Your task to perform on an android device: turn off smart reply in the gmail app Image 0: 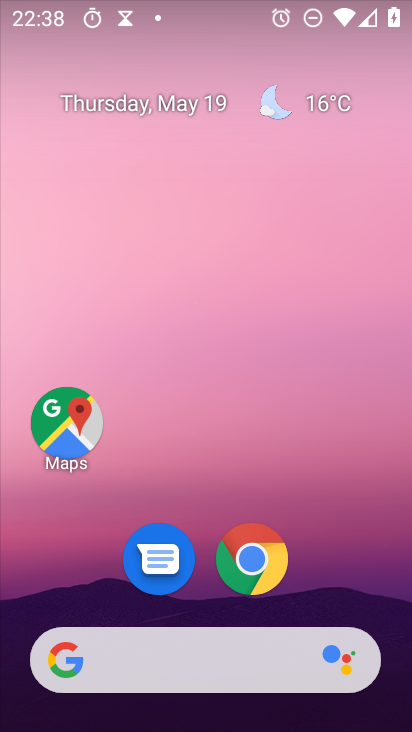
Step 0: drag from (212, 730) to (188, 178)
Your task to perform on an android device: turn off smart reply in the gmail app Image 1: 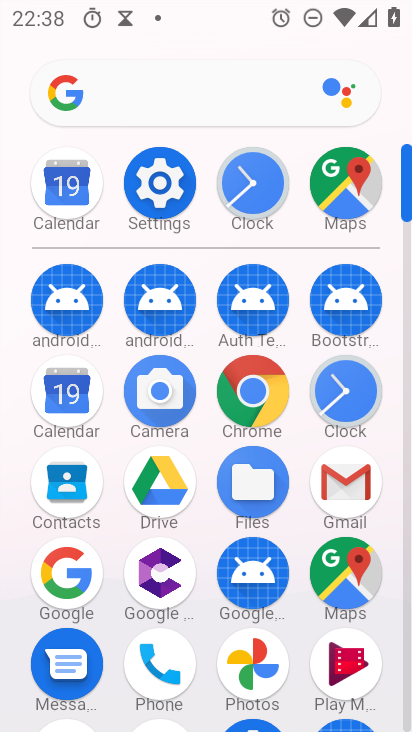
Step 1: click (337, 486)
Your task to perform on an android device: turn off smart reply in the gmail app Image 2: 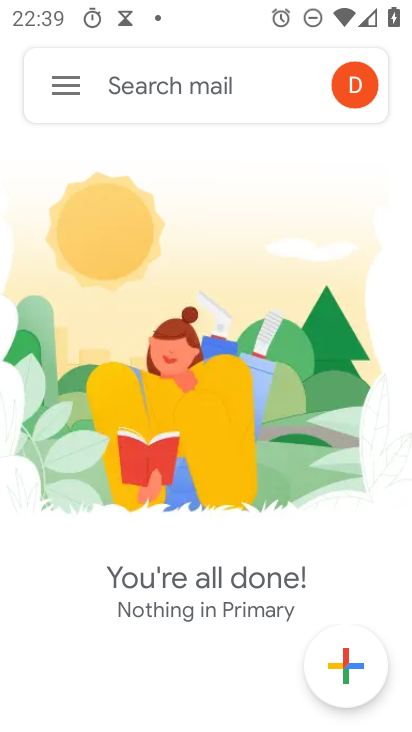
Step 2: click (63, 90)
Your task to perform on an android device: turn off smart reply in the gmail app Image 3: 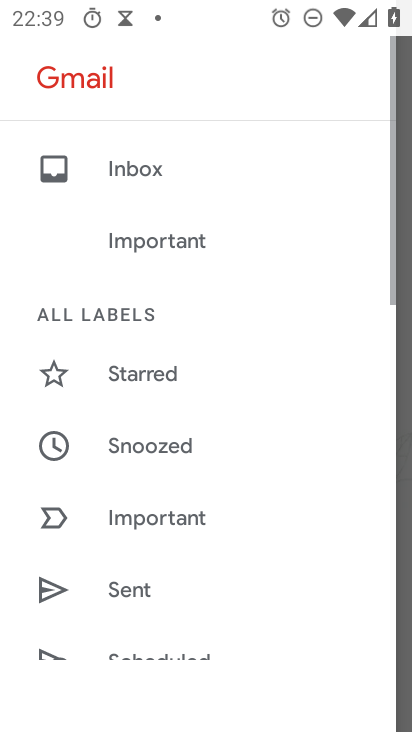
Step 3: drag from (182, 640) to (176, 226)
Your task to perform on an android device: turn off smart reply in the gmail app Image 4: 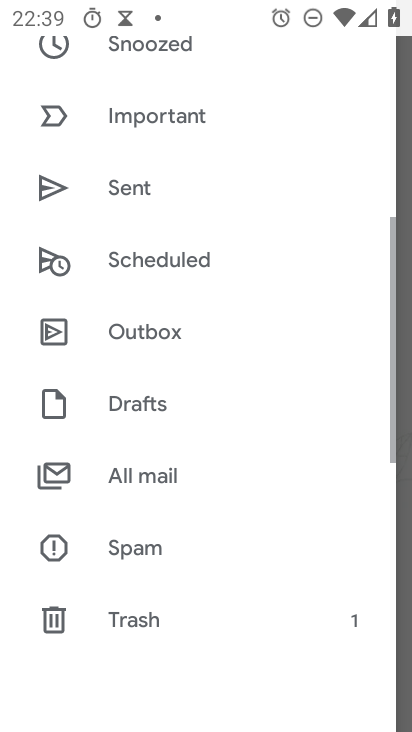
Step 4: drag from (172, 614) to (145, 276)
Your task to perform on an android device: turn off smart reply in the gmail app Image 5: 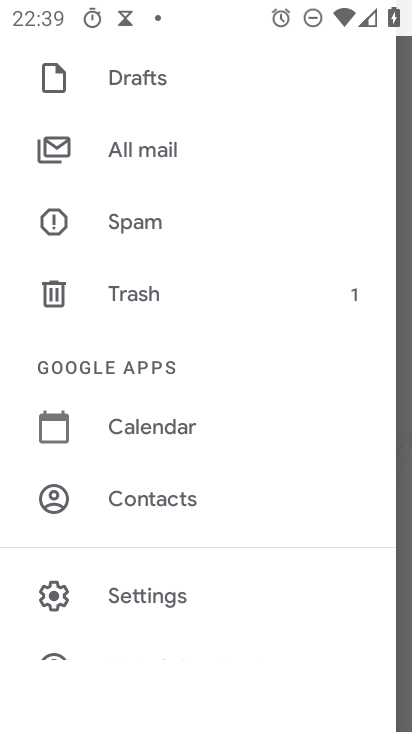
Step 5: click (161, 597)
Your task to perform on an android device: turn off smart reply in the gmail app Image 6: 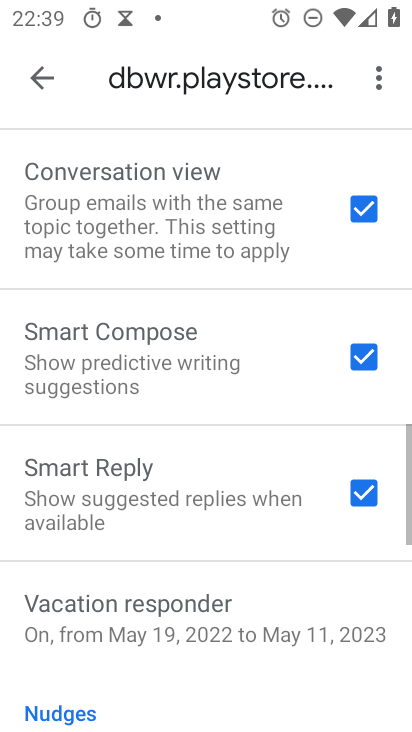
Step 6: drag from (159, 640) to (153, 375)
Your task to perform on an android device: turn off smart reply in the gmail app Image 7: 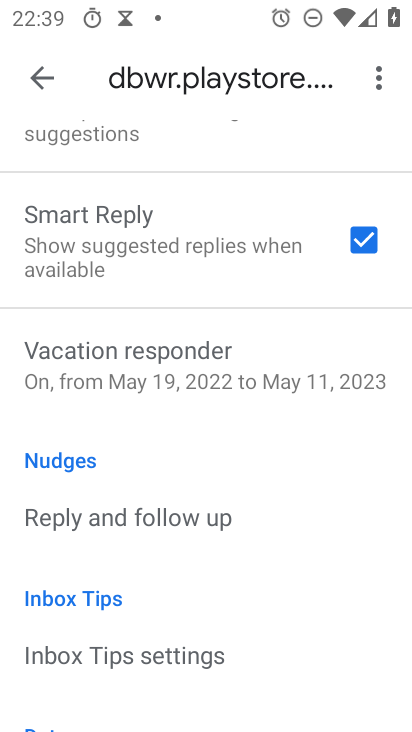
Step 7: click (363, 243)
Your task to perform on an android device: turn off smart reply in the gmail app Image 8: 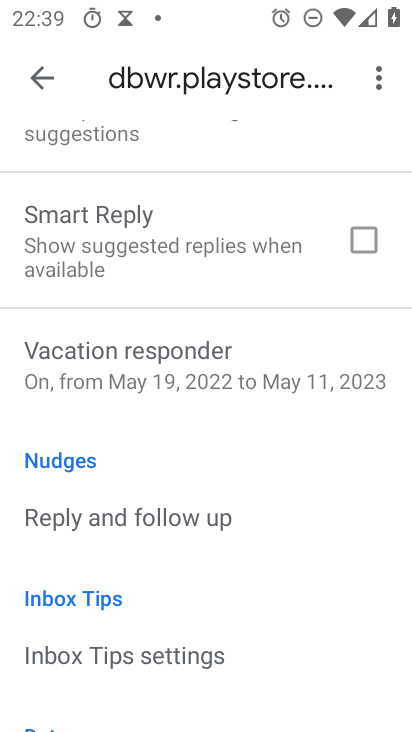
Step 8: task complete